Your task to perform on an android device: turn off picture-in-picture Image 0: 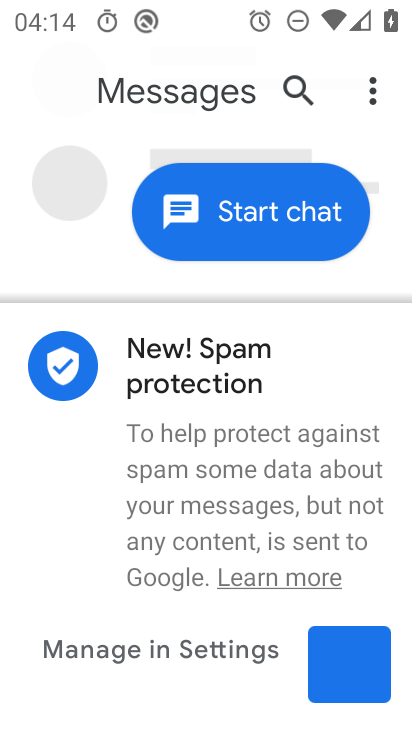
Step 0: press home button
Your task to perform on an android device: turn off picture-in-picture Image 1: 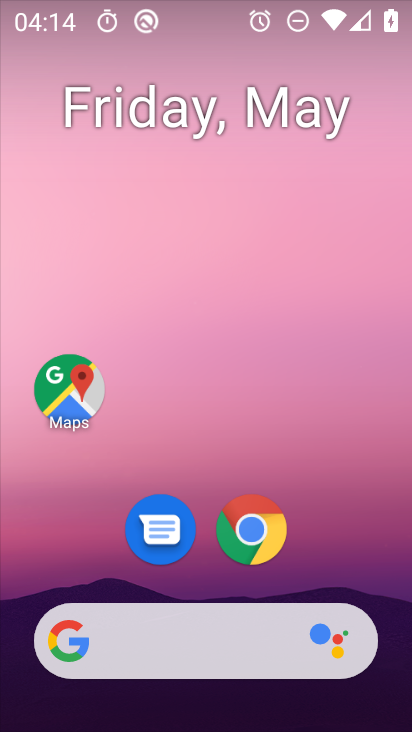
Step 1: click (256, 536)
Your task to perform on an android device: turn off picture-in-picture Image 2: 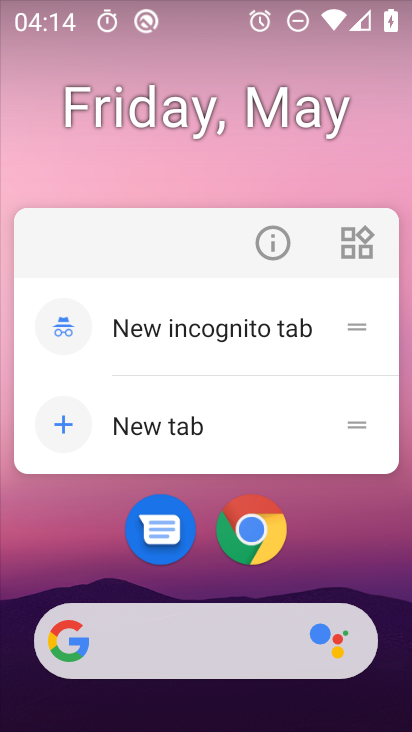
Step 2: click (268, 246)
Your task to perform on an android device: turn off picture-in-picture Image 3: 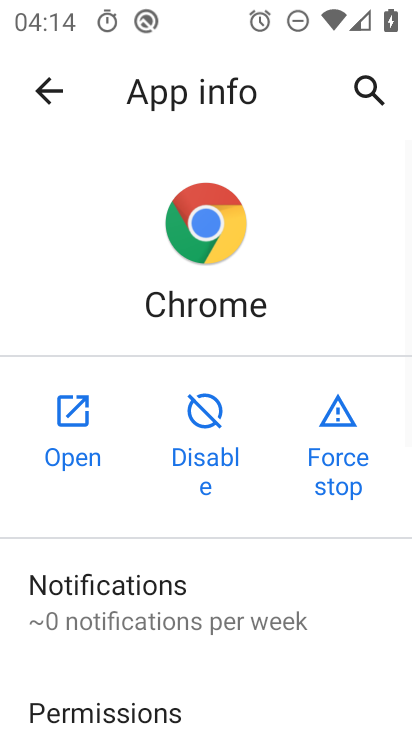
Step 3: drag from (310, 687) to (320, 139)
Your task to perform on an android device: turn off picture-in-picture Image 4: 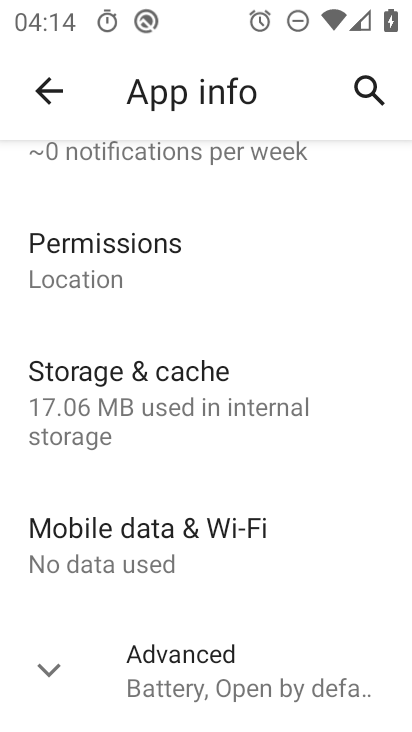
Step 4: click (57, 665)
Your task to perform on an android device: turn off picture-in-picture Image 5: 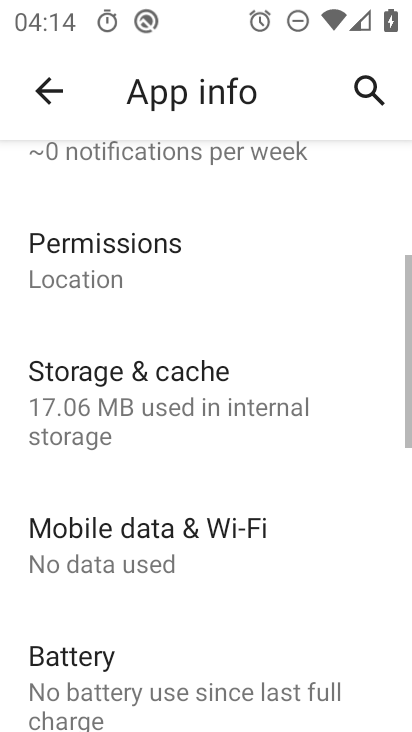
Step 5: drag from (311, 707) to (303, 26)
Your task to perform on an android device: turn off picture-in-picture Image 6: 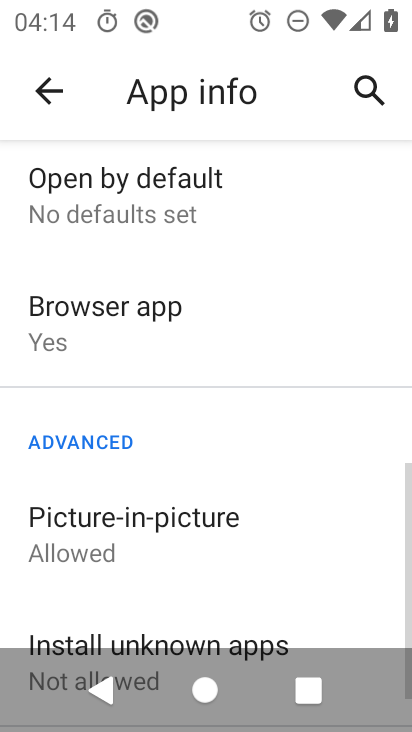
Step 6: click (80, 560)
Your task to perform on an android device: turn off picture-in-picture Image 7: 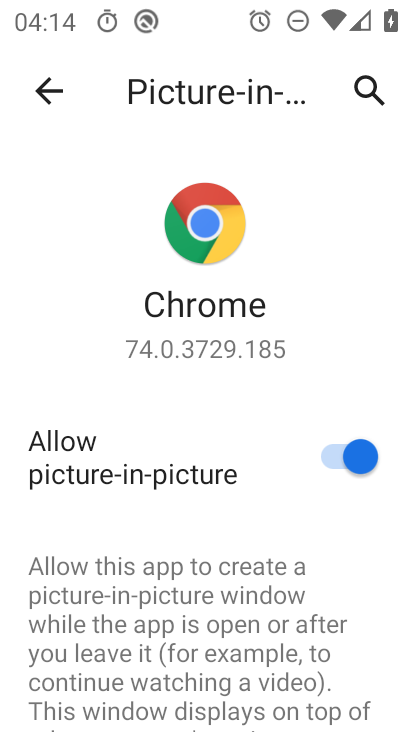
Step 7: click (326, 447)
Your task to perform on an android device: turn off picture-in-picture Image 8: 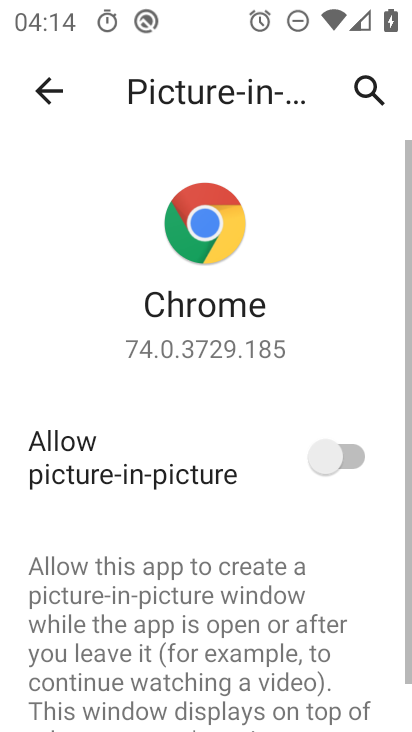
Step 8: task complete